Your task to perform on an android device: Go to Android settings Image 0: 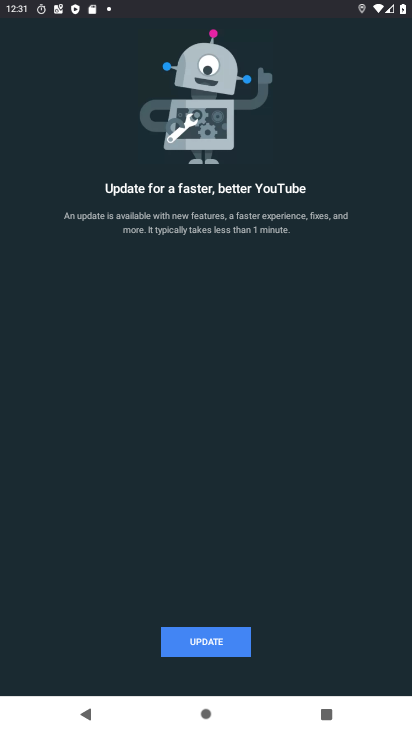
Step 0: drag from (125, 585) to (139, 261)
Your task to perform on an android device: Go to Android settings Image 1: 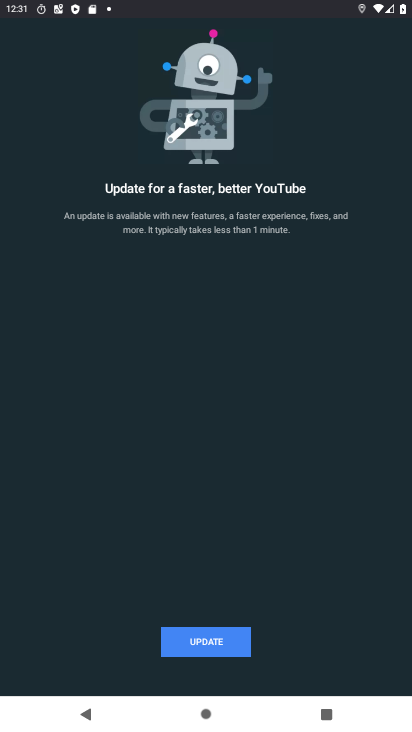
Step 1: press home button
Your task to perform on an android device: Go to Android settings Image 2: 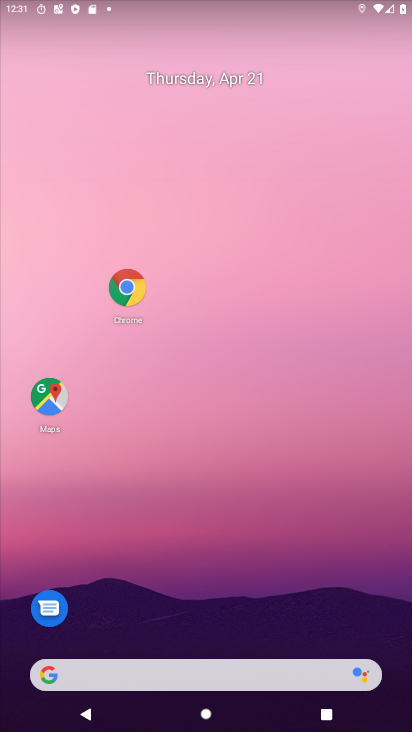
Step 2: drag from (143, 445) to (60, 169)
Your task to perform on an android device: Go to Android settings Image 3: 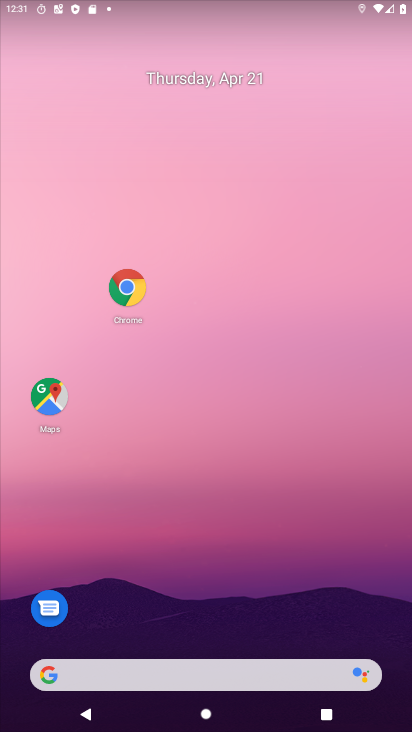
Step 3: drag from (263, 502) to (91, 57)
Your task to perform on an android device: Go to Android settings Image 4: 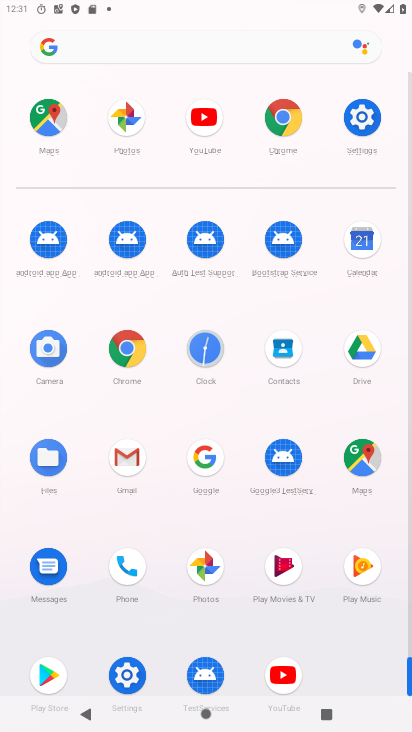
Step 4: click (364, 115)
Your task to perform on an android device: Go to Android settings Image 5: 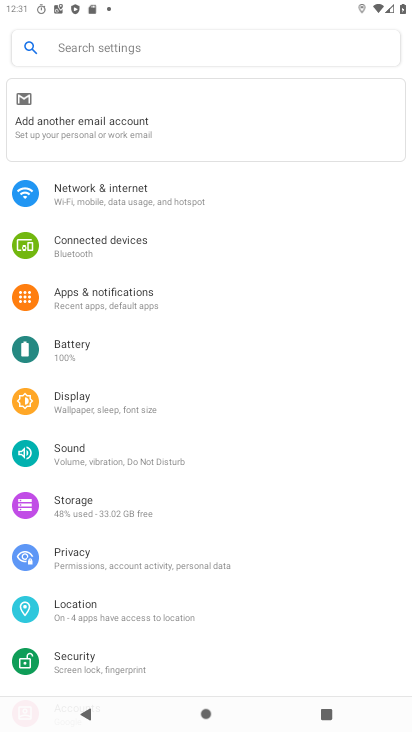
Step 5: drag from (286, 620) to (269, 161)
Your task to perform on an android device: Go to Android settings Image 6: 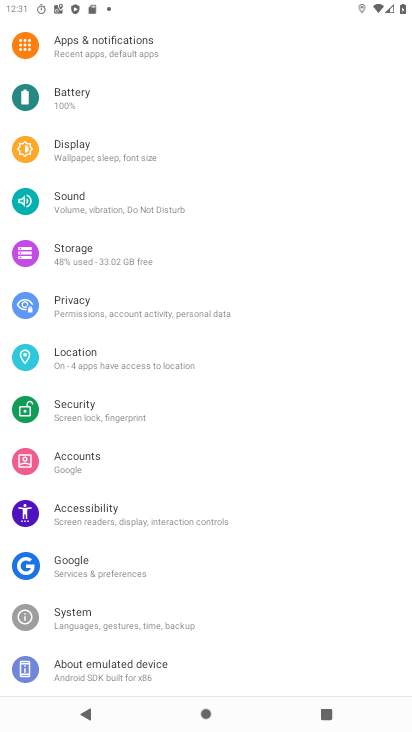
Step 6: click (147, 659)
Your task to perform on an android device: Go to Android settings Image 7: 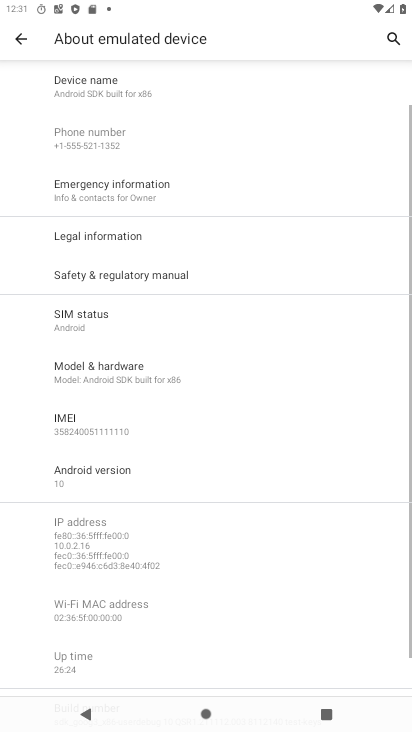
Step 7: click (101, 476)
Your task to perform on an android device: Go to Android settings Image 8: 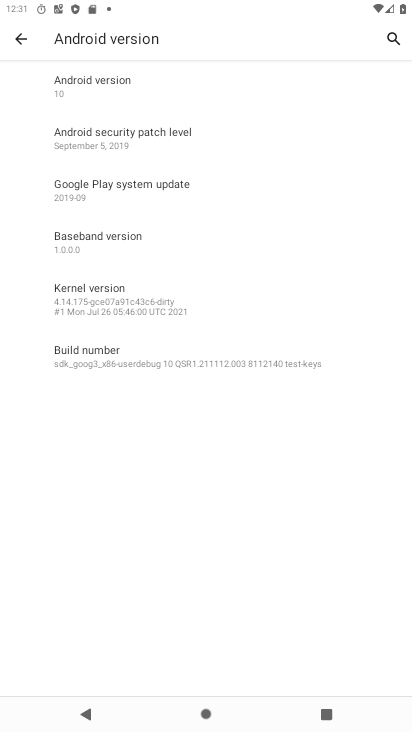
Step 8: task complete